Your task to perform on an android device: Open Google Image 0: 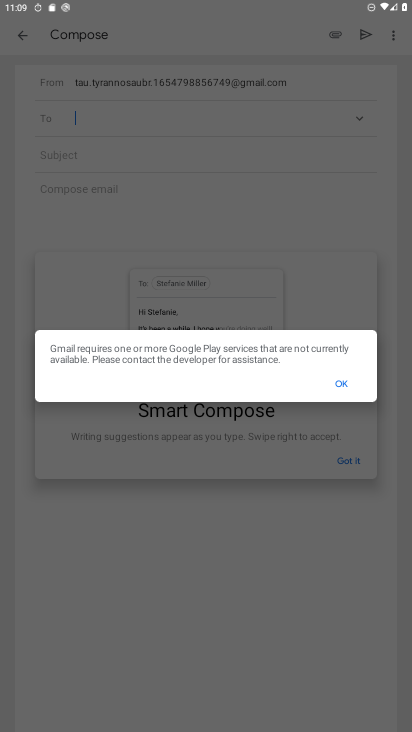
Step 0: press home button
Your task to perform on an android device: Open Google Image 1: 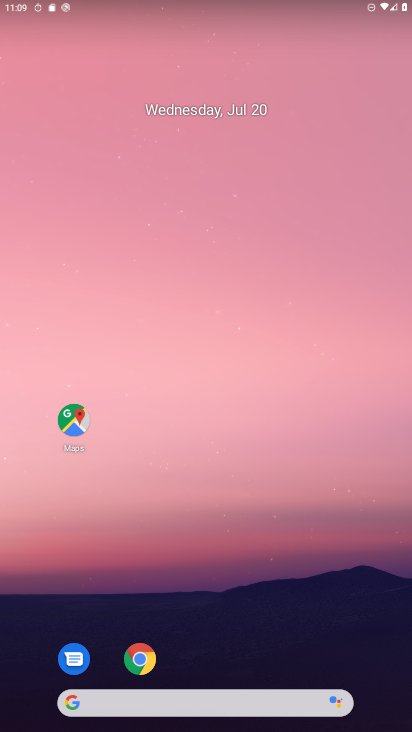
Step 1: drag from (326, 596) to (202, 51)
Your task to perform on an android device: Open Google Image 2: 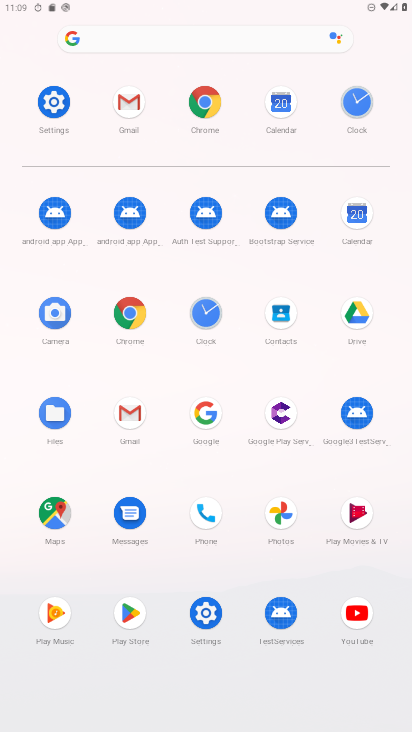
Step 2: click (215, 420)
Your task to perform on an android device: Open Google Image 3: 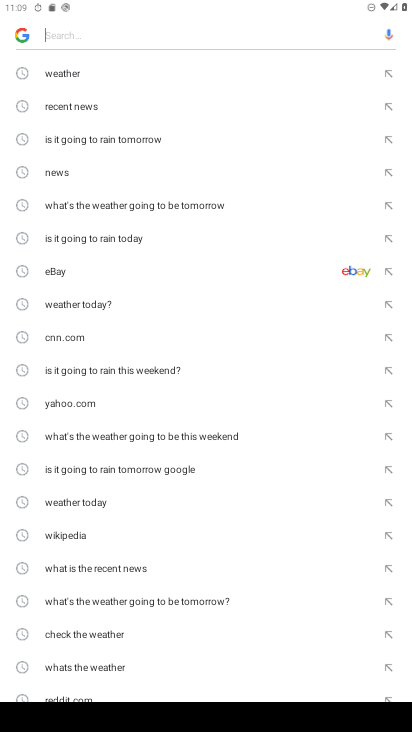
Step 3: task complete